Your task to perform on an android device: move a message to another label in the gmail app Image 0: 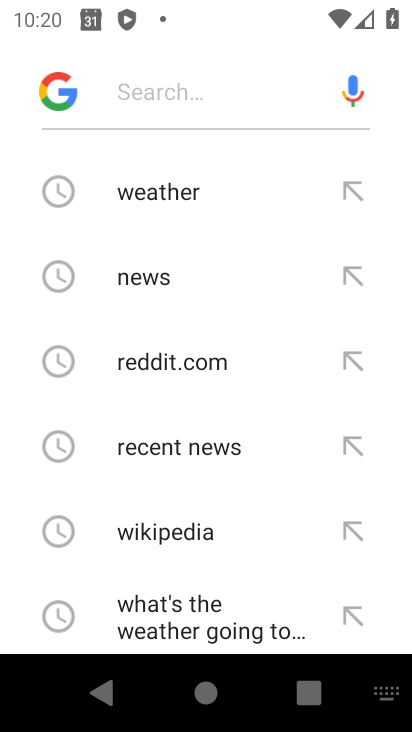
Step 0: press home button
Your task to perform on an android device: move a message to another label in the gmail app Image 1: 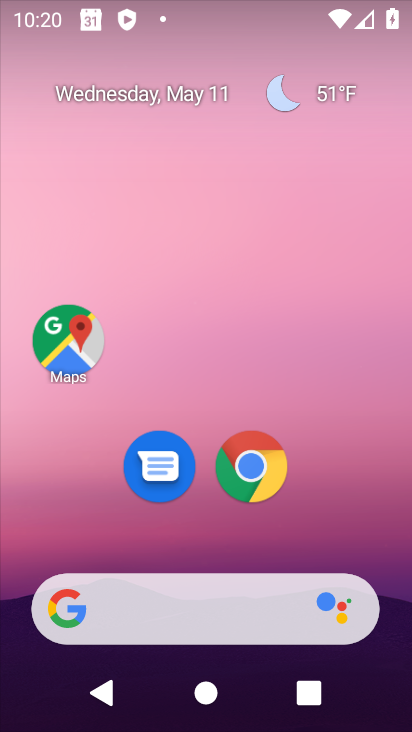
Step 1: drag from (392, 512) to (322, 241)
Your task to perform on an android device: move a message to another label in the gmail app Image 2: 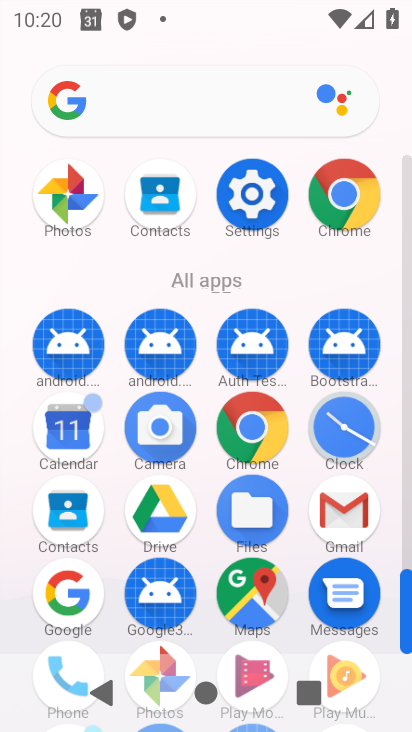
Step 2: click (336, 525)
Your task to perform on an android device: move a message to another label in the gmail app Image 3: 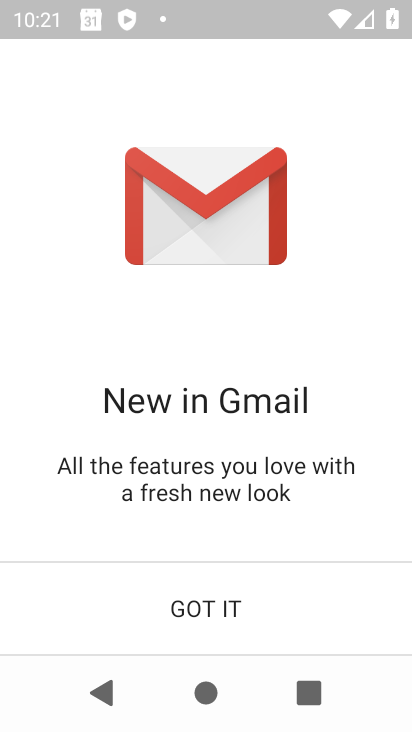
Step 3: click (198, 617)
Your task to perform on an android device: move a message to another label in the gmail app Image 4: 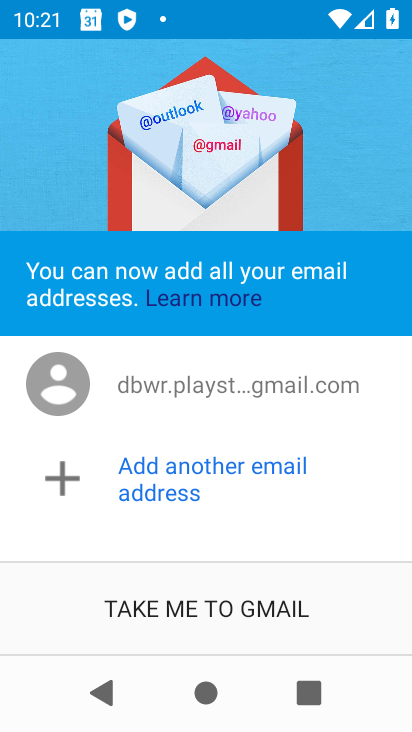
Step 4: click (200, 606)
Your task to perform on an android device: move a message to another label in the gmail app Image 5: 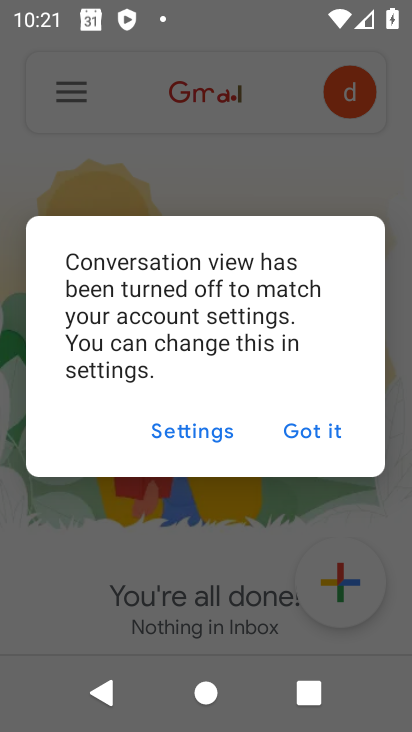
Step 5: click (297, 436)
Your task to perform on an android device: move a message to another label in the gmail app Image 6: 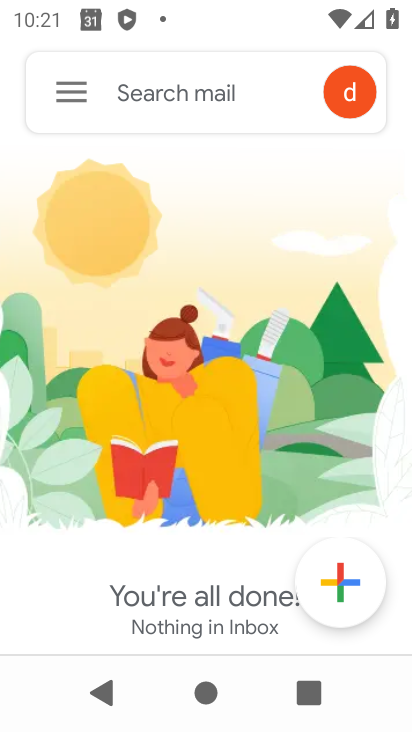
Step 6: click (78, 100)
Your task to perform on an android device: move a message to another label in the gmail app Image 7: 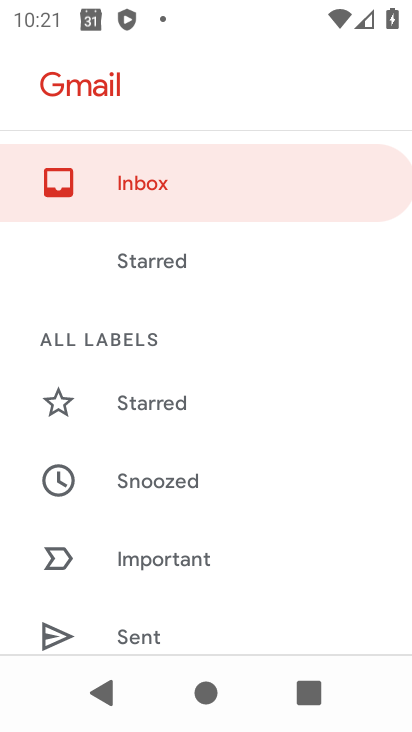
Step 7: drag from (256, 569) to (214, 287)
Your task to perform on an android device: move a message to another label in the gmail app Image 8: 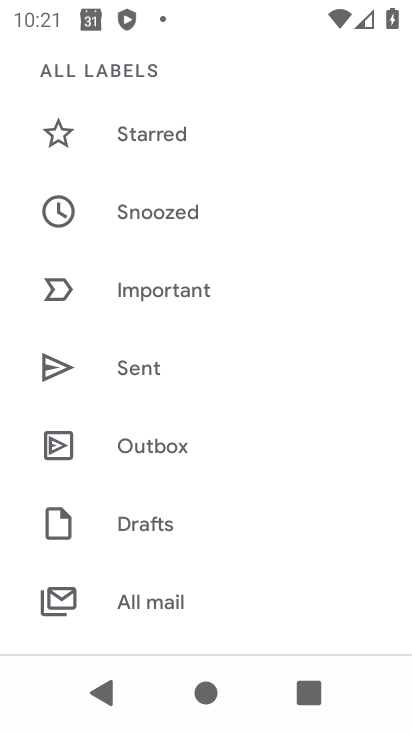
Step 8: click (217, 606)
Your task to perform on an android device: move a message to another label in the gmail app Image 9: 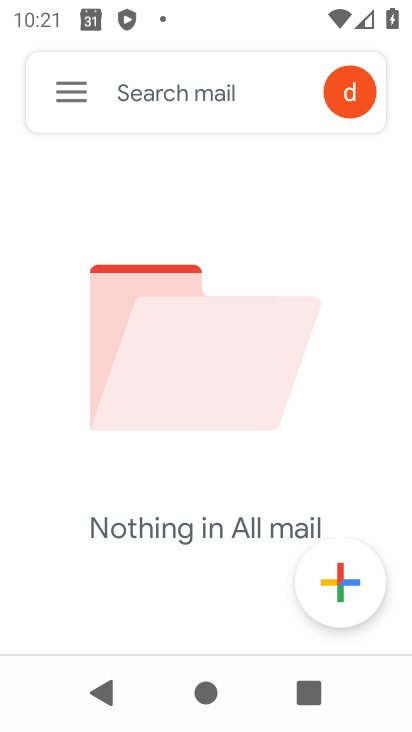
Step 9: task complete